Your task to perform on an android device: change alarm snooze length Image 0: 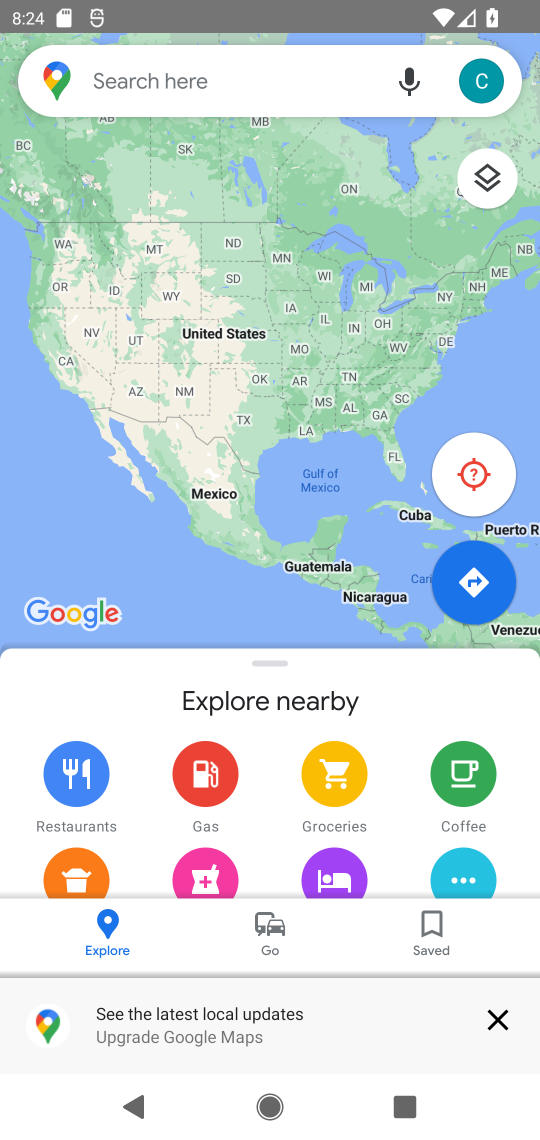
Step 0: press home button
Your task to perform on an android device: change alarm snooze length Image 1: 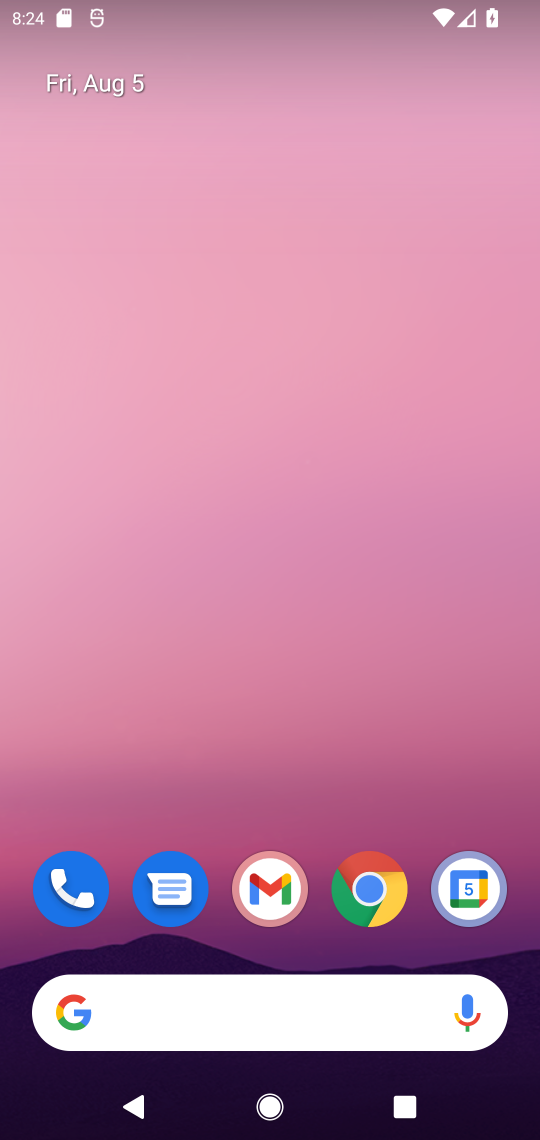
Step 1: drag from (311, 927) to (315, 320)
Your task to perform on an android device: change alarm snooze length Image 2: 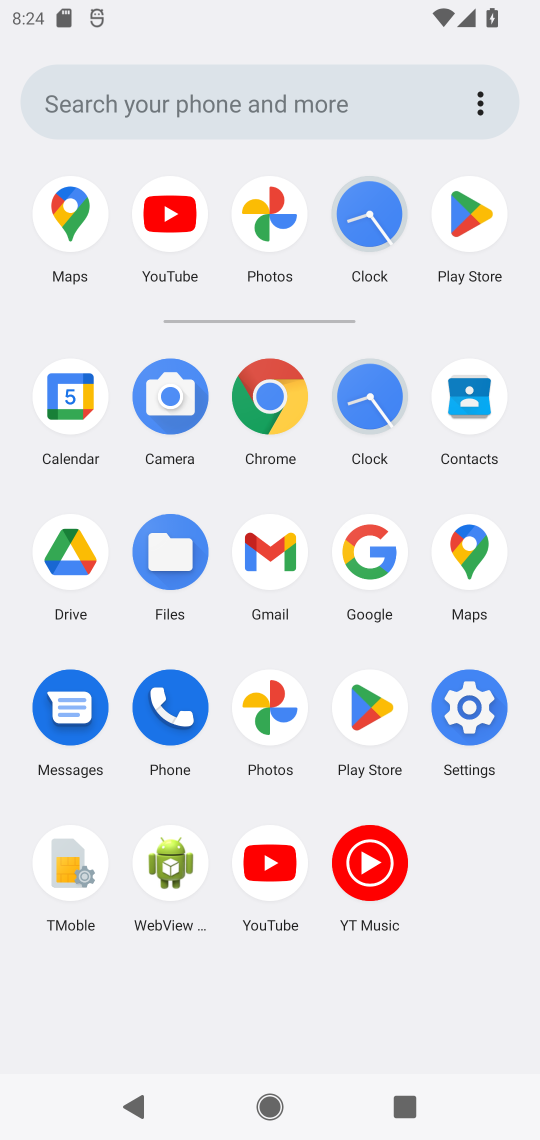
Step 2: click (373, 383)
Your task to perform on an android device: change alarm snooze length Image 3: 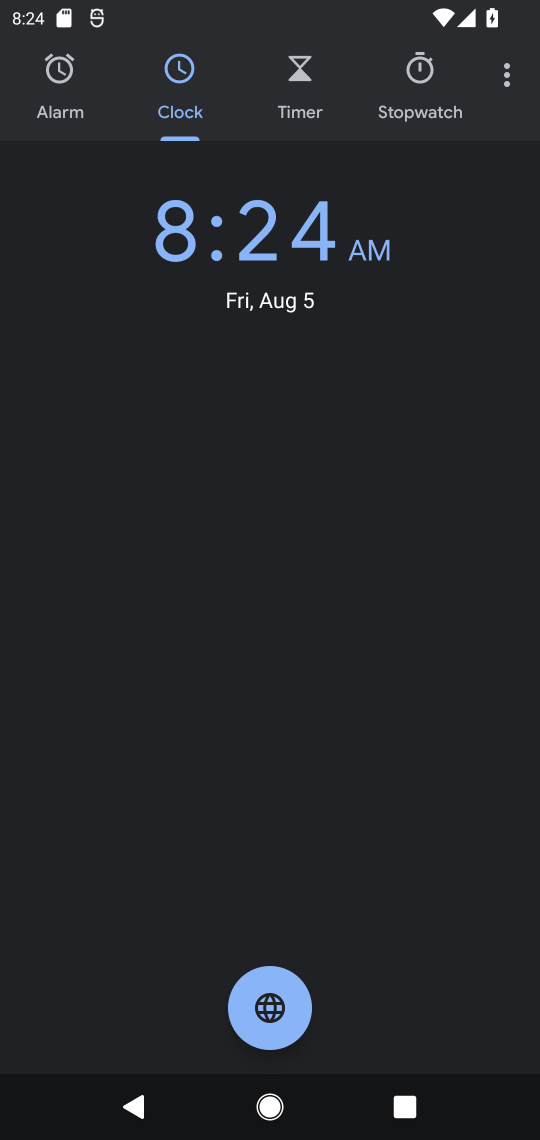
Step 3: click (522, 56)
Your task to perform on an android device: change alarm snooze length Image 4: 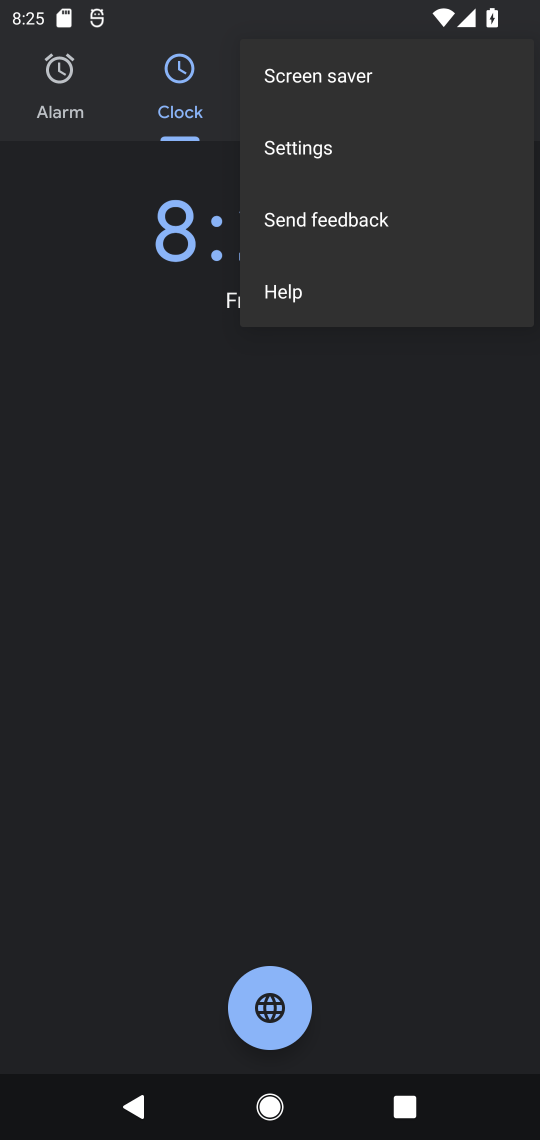
Step 4: click (327, 156)
Your task to perform on an android device: change alarm snooze length Image 5: 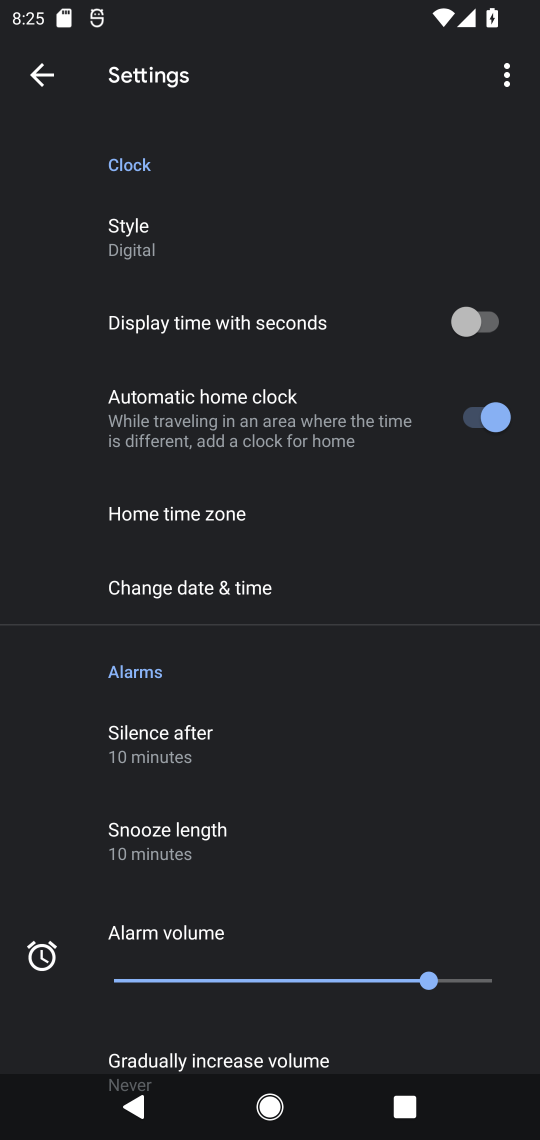
Step 5: drag from (219, 891) to (232, 694)
Your task to perform on an android device: change alarm snooze length Image 6: 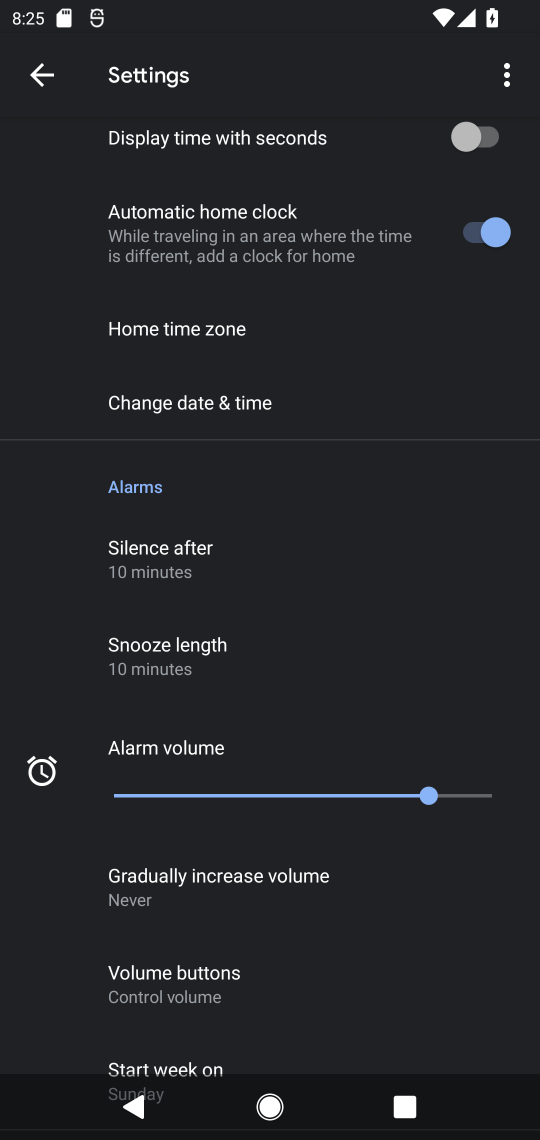
Step 6: click (202, 634)
Your task to perform on an android device: change alarm snooze length Image 7: 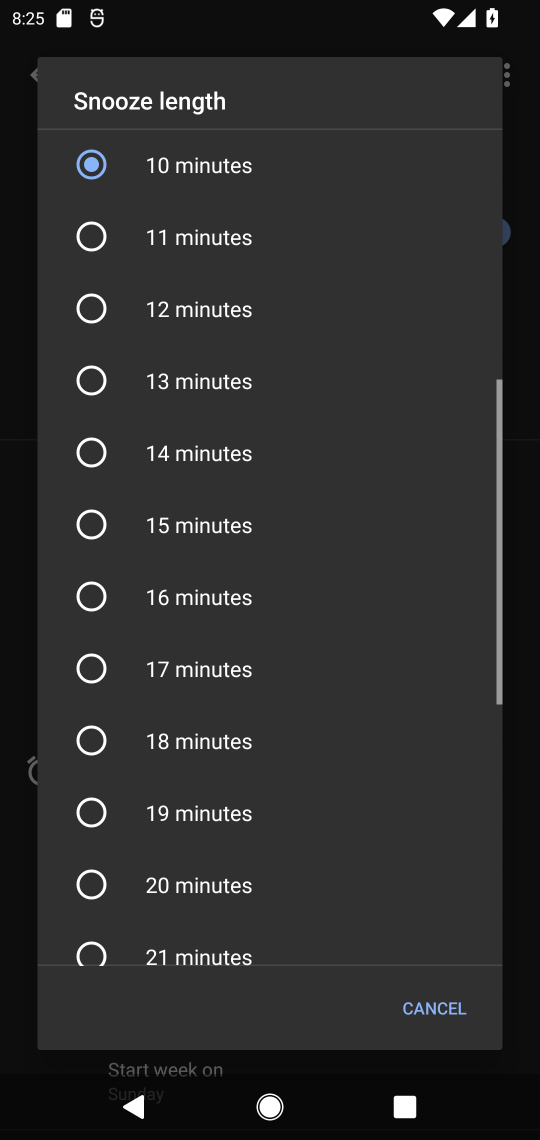
Step 7: click (165, 953)
Your task to perform on an android device: change alarm snooze length Image 8: 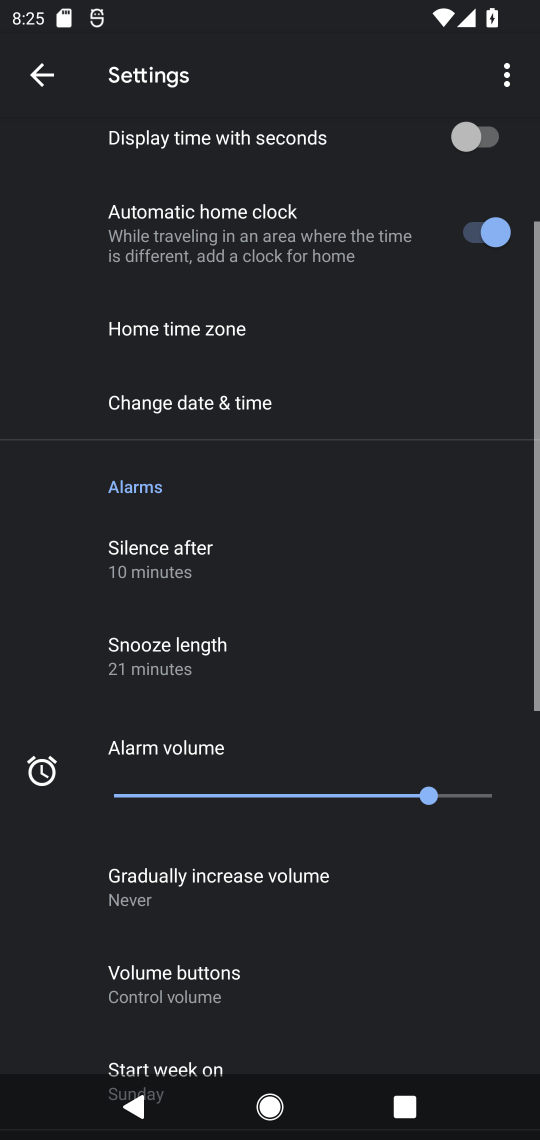
Step 8: task complete